Your task to perform on an android device: Go to wifi settings Image 0: 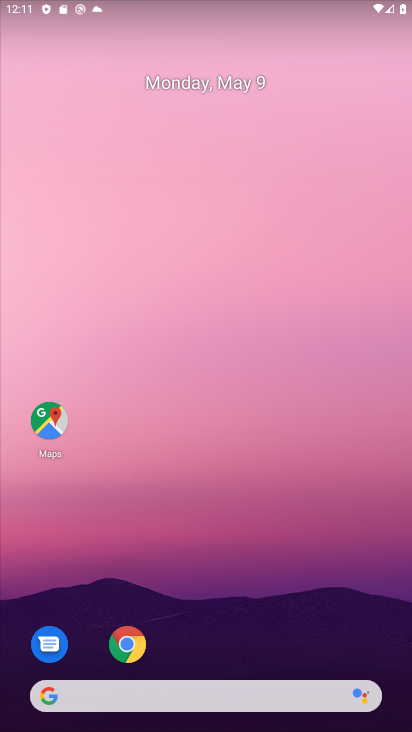
Step 0: drag from (357, 584) to (64, 21)
Your task to perform on an android device: Go to wifi settings Image 1: 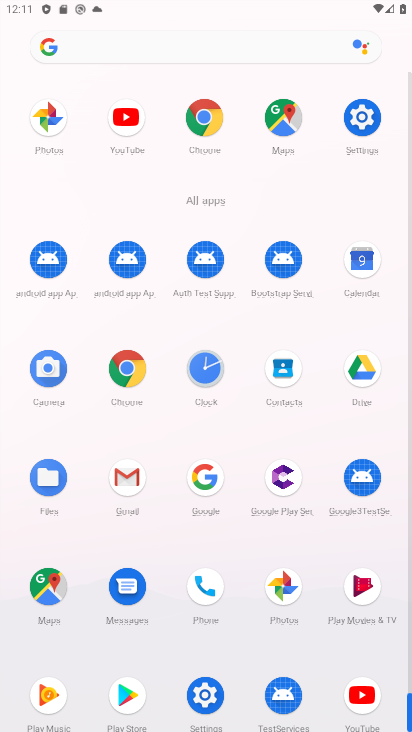
Step 1: click (362, 116)
Your task to perform on an android device: Go to wifi settings Image 2: 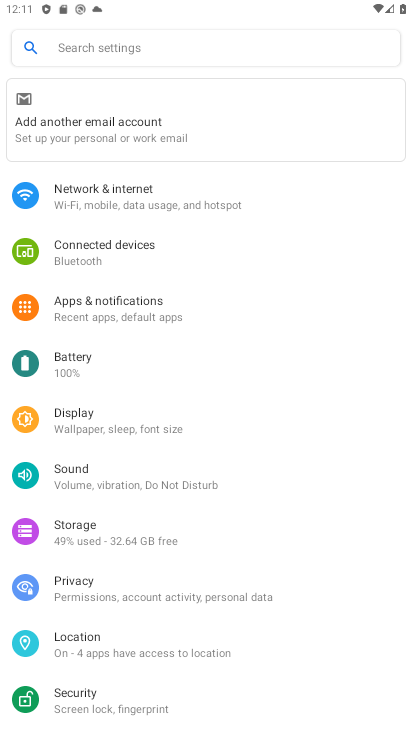
Step 2: click (128, 198)
Your task to perform on an android device: Go to wifi settings Image 3: 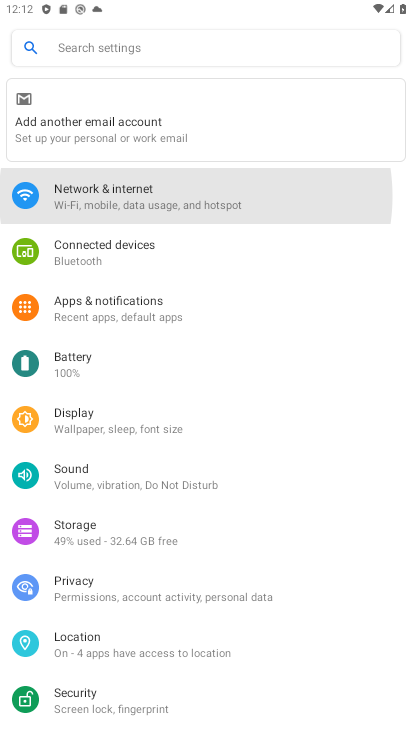
Step 3: click (129, 197)
Your task to perform on an android device: Go to wifi settings Image 4: 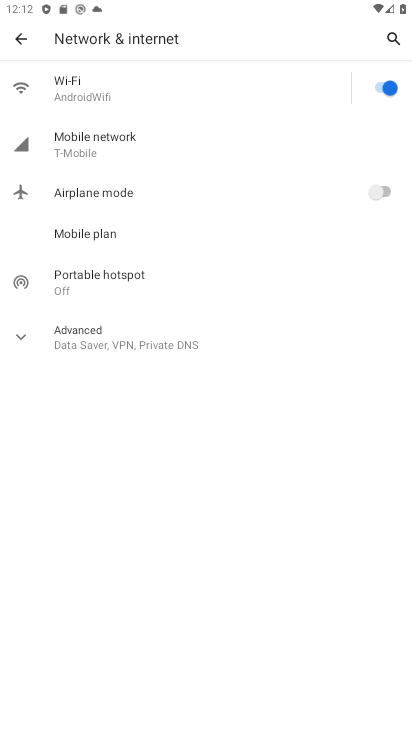
Step 4: task complete